Your task to perform on an android device: Open Wikipedia Image 0: 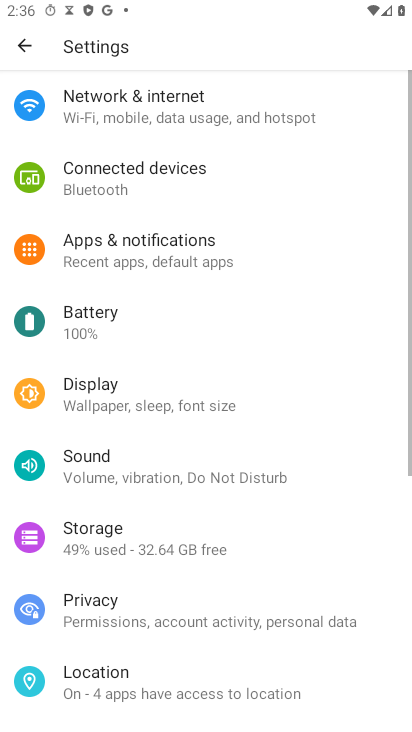
Step 0: press home button
Your task to perform on an android device: Open Wikipedia Image 1: 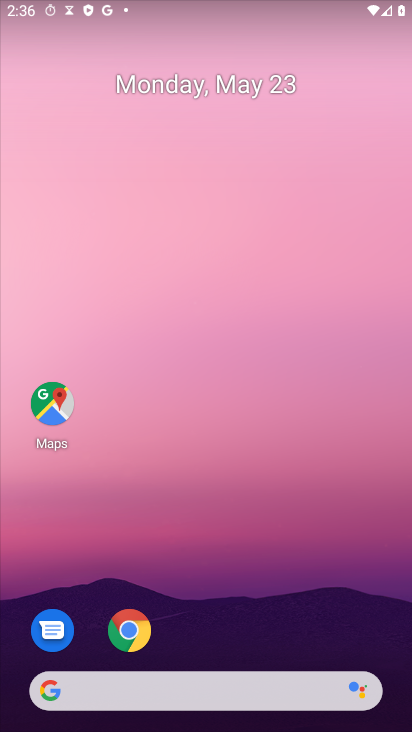
Step 1: drag from (214, 526) to (211, 132)
Your task to perform on an android device: Open Wikipedia Image 2: 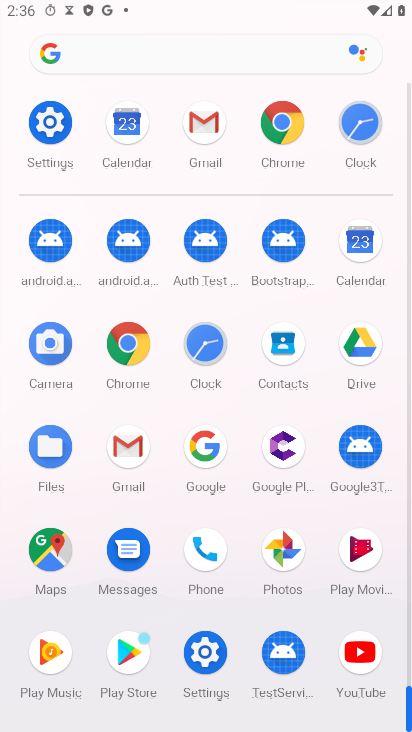
Step 2: click (282, 130)
Your task to perform on an android device: Open Wikipedia Image 3: 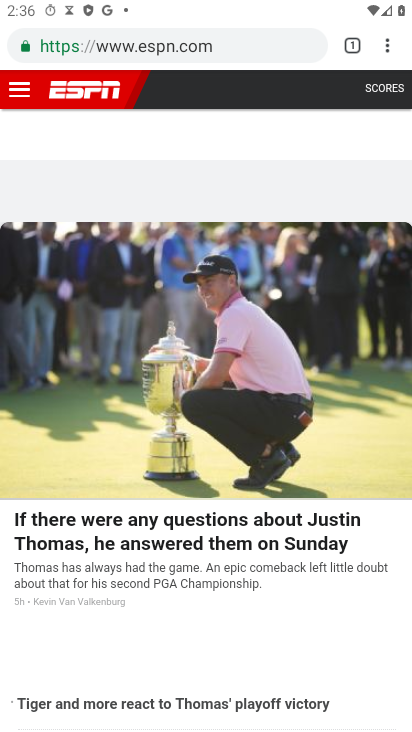
Step 3: click (188, 56)
Your task to perform on an android device: Open Wikipedia Image 4: 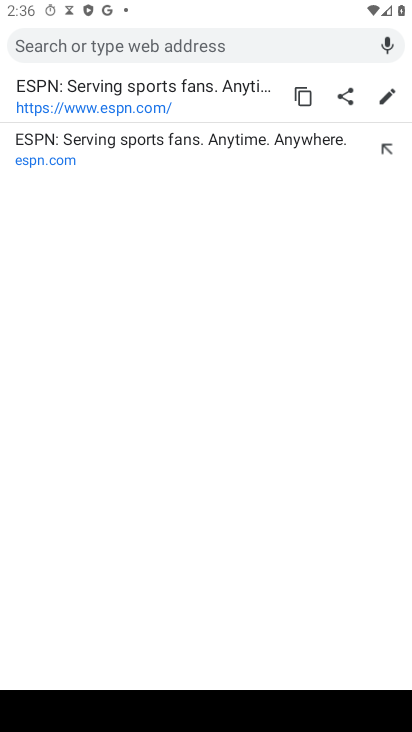
Step 4: type "wikipedia"
Your task to perform on an android device: Open Wikipedia Image 5: 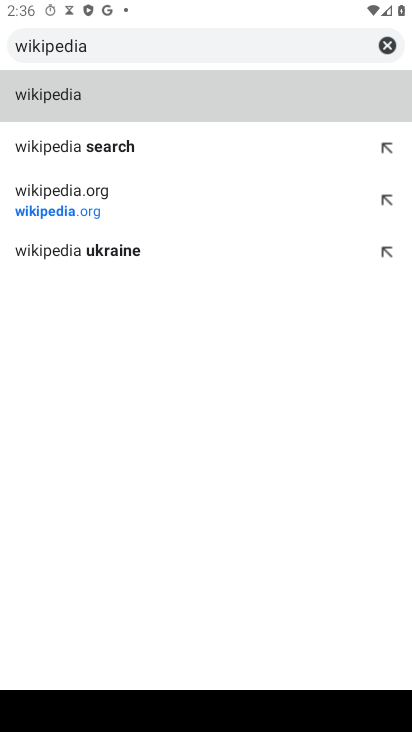
Step 5: click (37, 107)
Your task to perform on an android device: Open Wikipedia Image 6: 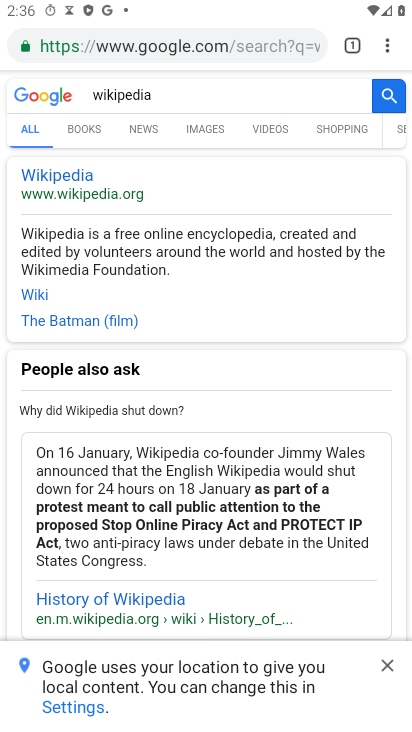
Step 6: click (33, 180)
Your task to perform on an android device: Open Wikipedia Image 7: 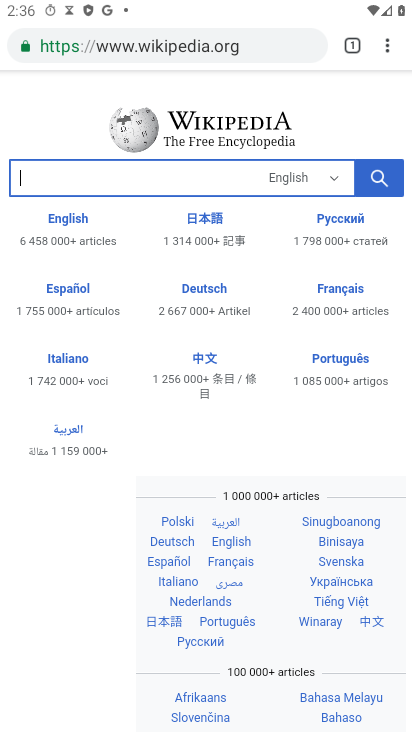
Step 7: task complete